Your task to perform on an android device: Open calendar and show me the first week of next month Image 0: 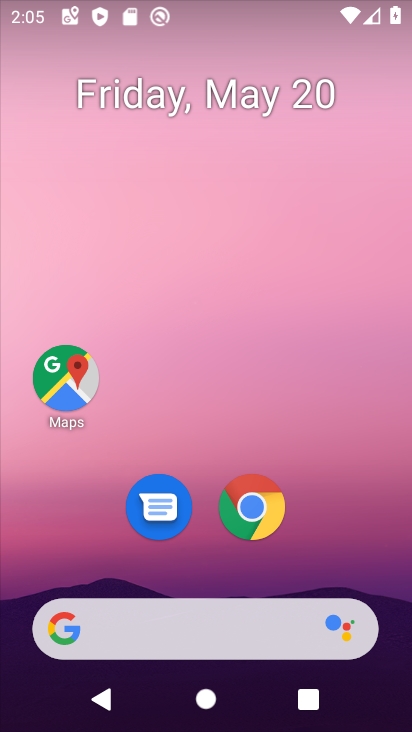
Step 0: drag from (218, 726) to (217, 125)
Your task to perform on an android device: Open calendar and show me the first week of next month Image 1: 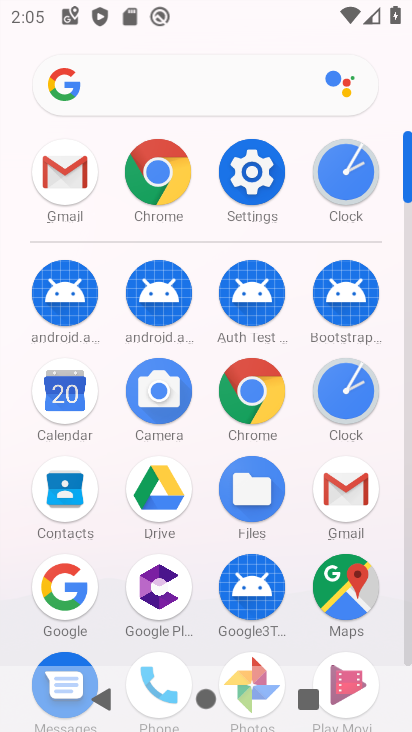
Step 1: click (71, 386)
Your task to perform on an android device: Open calendar and show me the first week of next month Image 2: 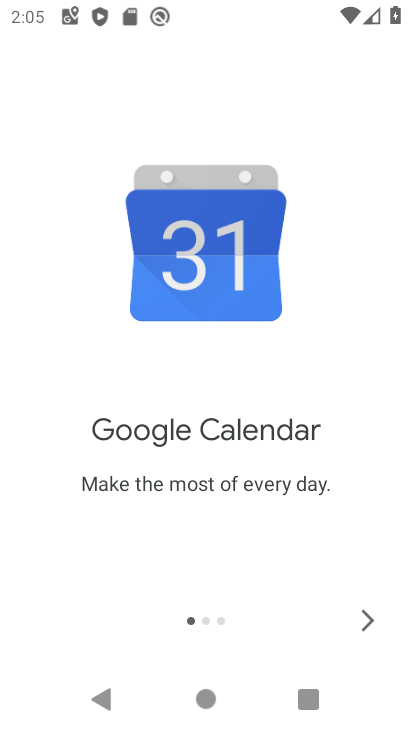
Step 2: click (370, 615)
Your task to perform on an android device: Open calendar and show me the first week of next month Image 3: 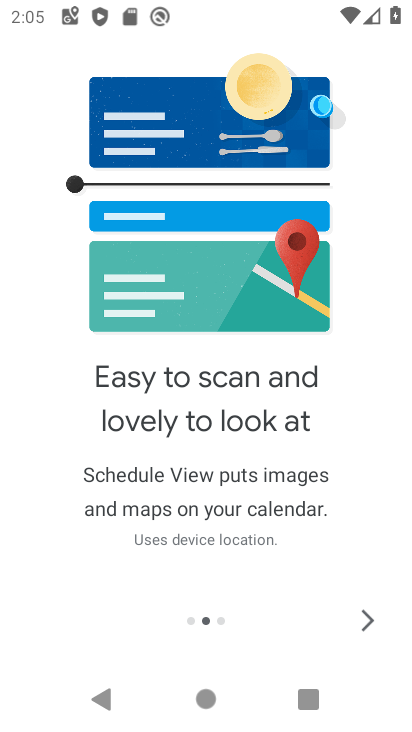
Step 3: click (370, 615)
Your task to perform on an android device: Open calendar and show me the first week of next month Image 4: 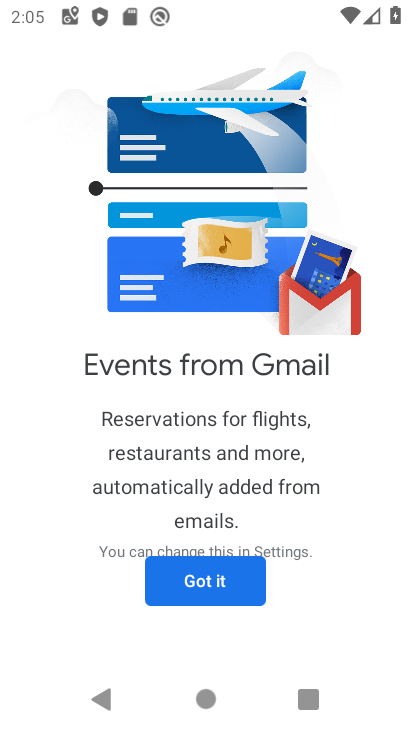
Step 4: click (207, 576)
Your task to perform on an android device: Open calendar and show me the first week of next month Image 5: 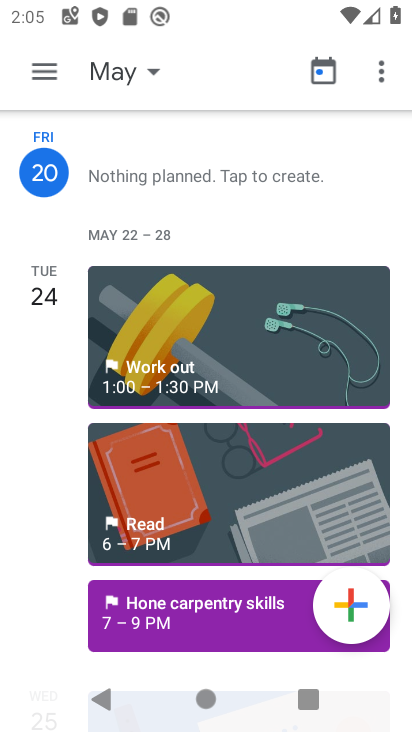
Step 5: click (119, 67)
Your task to perform on an android device: Open calendar and show me the first week of next month Image 6: 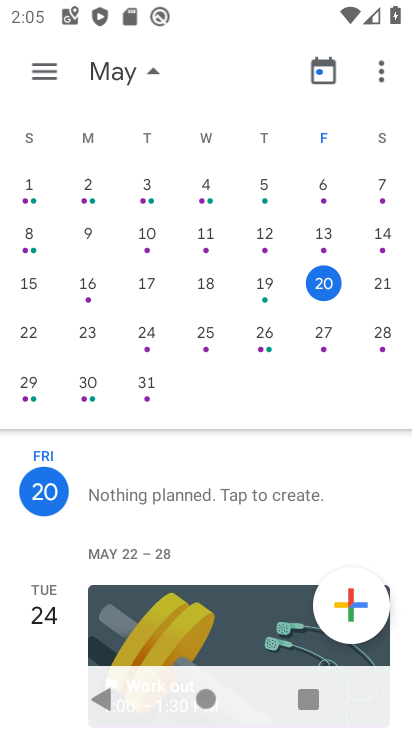
Step 6: drag from (345, 238) to (2, 186)
Your task to perform on an android device: Open calendar and show me the first week of next month Image 7: 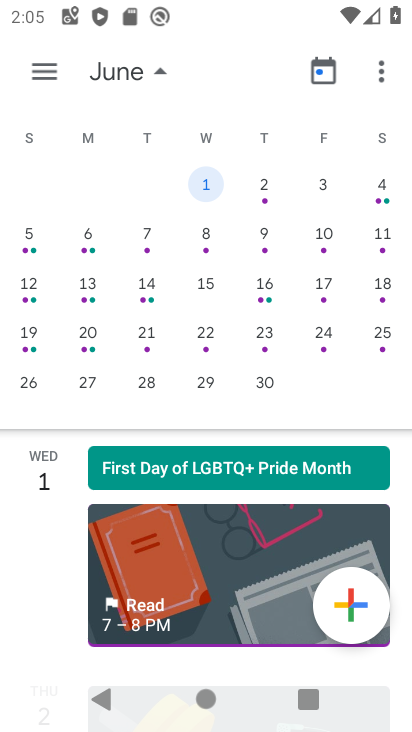
Step 7: click (86, 235)
Your task to perform on an android device: Open calendar and show me the first week of next month Image 8: 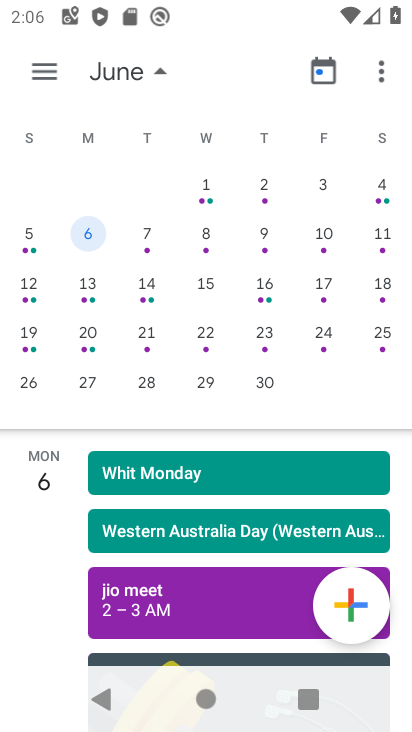
Step 8: click (40, 70)
Your task to perform on an android device: Open calendar and show me the first week of next month Image 9: 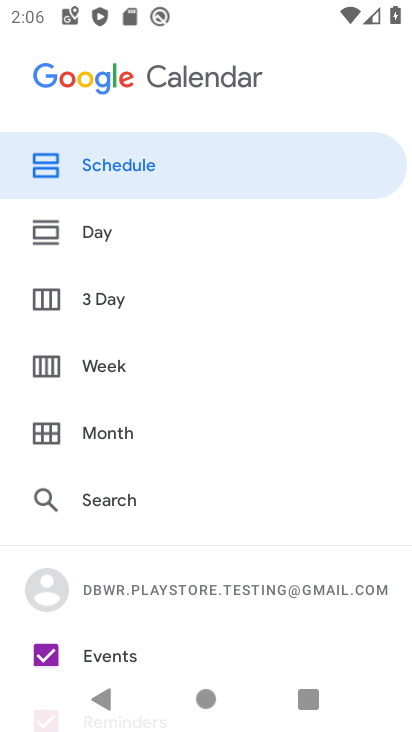
Step 9: click (115, 366)
Your task to perform on an android device: Open calendar and show me the first week of next month Image 10: 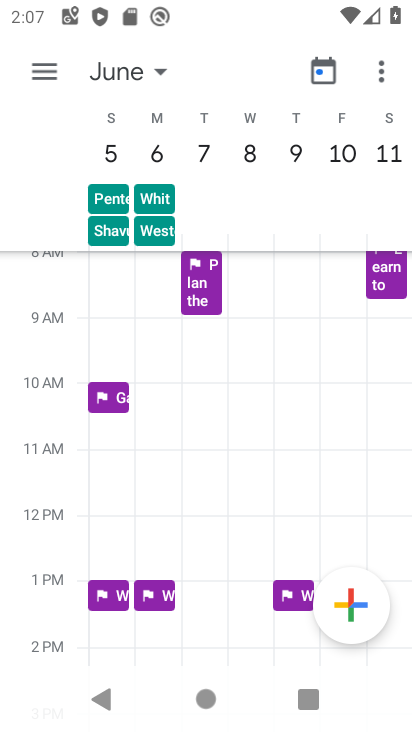
Step 10: task complete